Your task to perform on an android device: toggle show notifications on the lock screen Image 0: 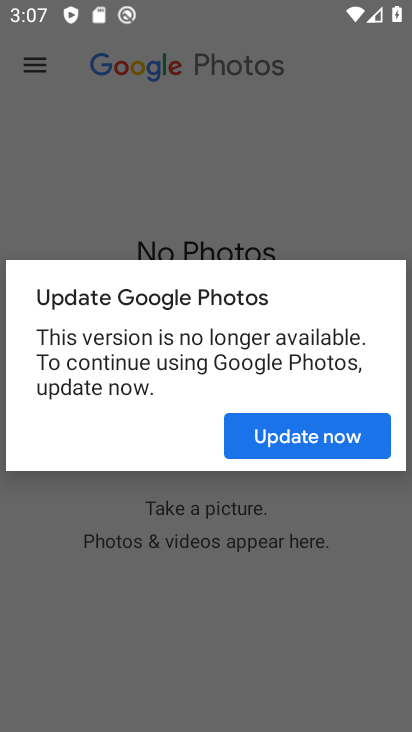
Step 0: press home button
Your task to perform on an android device: toggle show notifications on the lock screen Image 1: 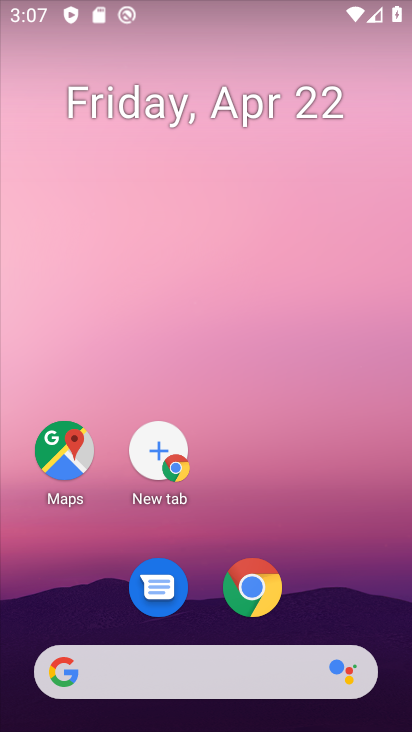
Step 1: drag from (208, 622) to (208, 165)
Your task to perform on an android device: toggle show notifications on the lock screen Image 2: 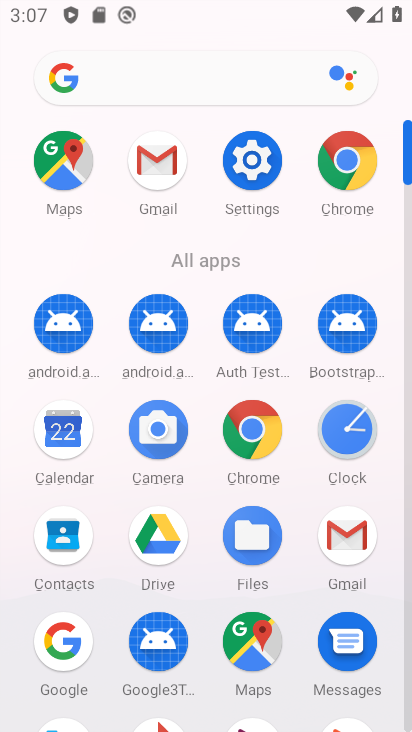
Step 2: click (263, 180)
Your task to perform on an android device: toggle show notifications on the lock screen Image 3: 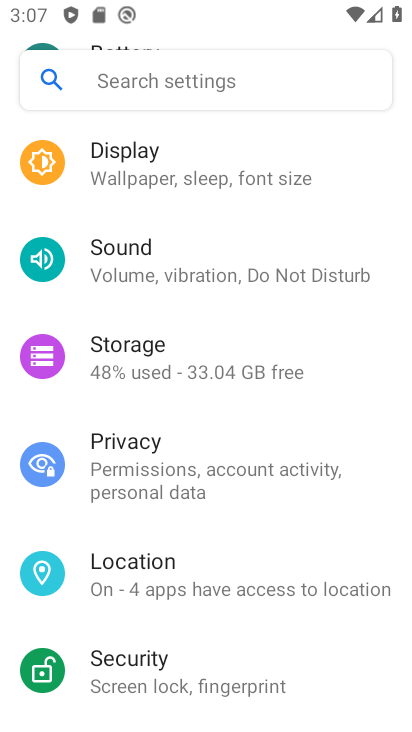
Step 3: drag from (244, 151) to (226, 567)
Your task to perform on an android device: toggle show notifications on the lock screen Image 4: 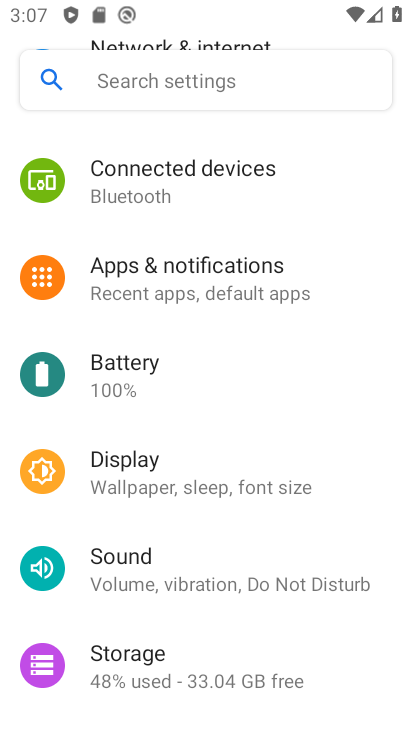
Step 4: click (228, 266)
Your task to perform on an android device: toggle show notifications on the lock screen Image 5: 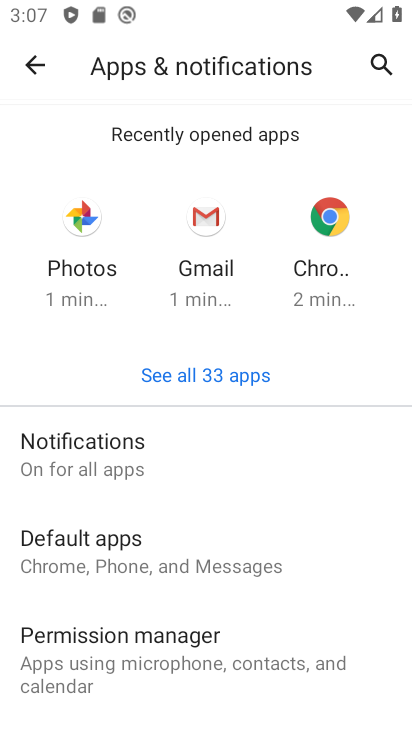
Step 5: drag from (190, 602) to (181, 310)
Your task to perform on an android device: toggle show notifications on the lock screen Image 6: 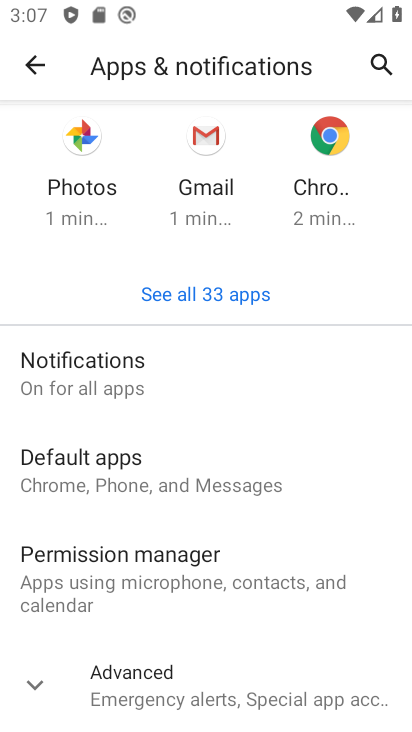
Step 6: click (164, 359)
Your task to perform on an android device: toggle show notifications on the lock screen Image 7: 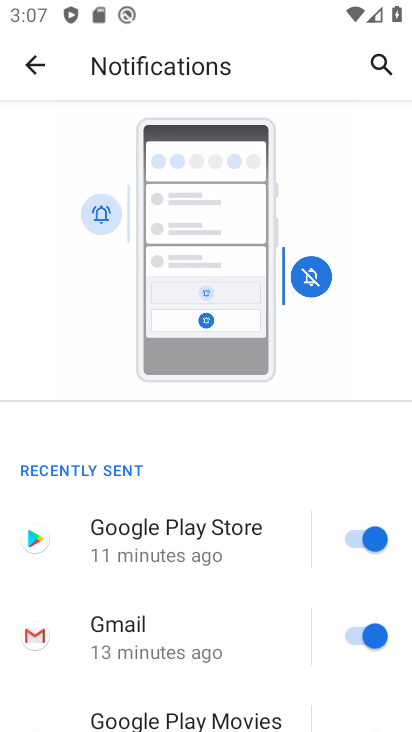
Step 7: drag from (210, 688) to (217, 211)
Your task to perform on an android device: toggle show notifications on the lock screen Image 8: 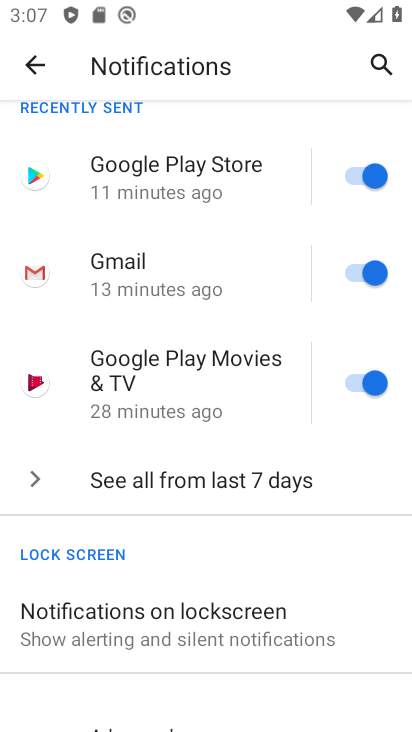
Step 8: click (151, 613)
Your task to perform on an android device: toggle show notifications on the lock screen Image 9: 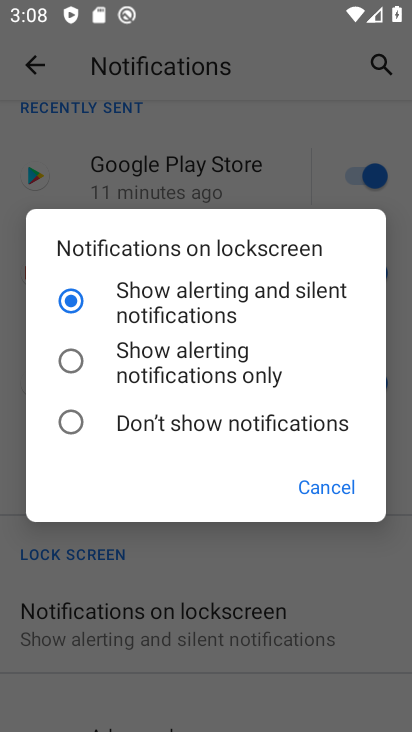
Step 9: click (211, 381)
Your task to perform on an android device: toggle show notifications on the lock screen Image 10: 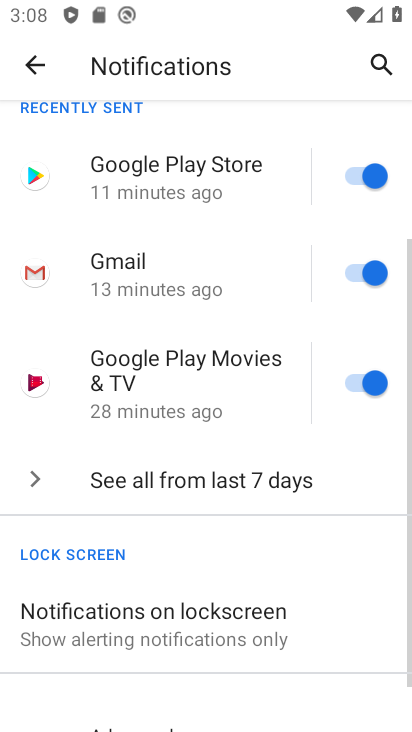
Step 10: task complete